Your task to perform on an android device: check android version Image 0: 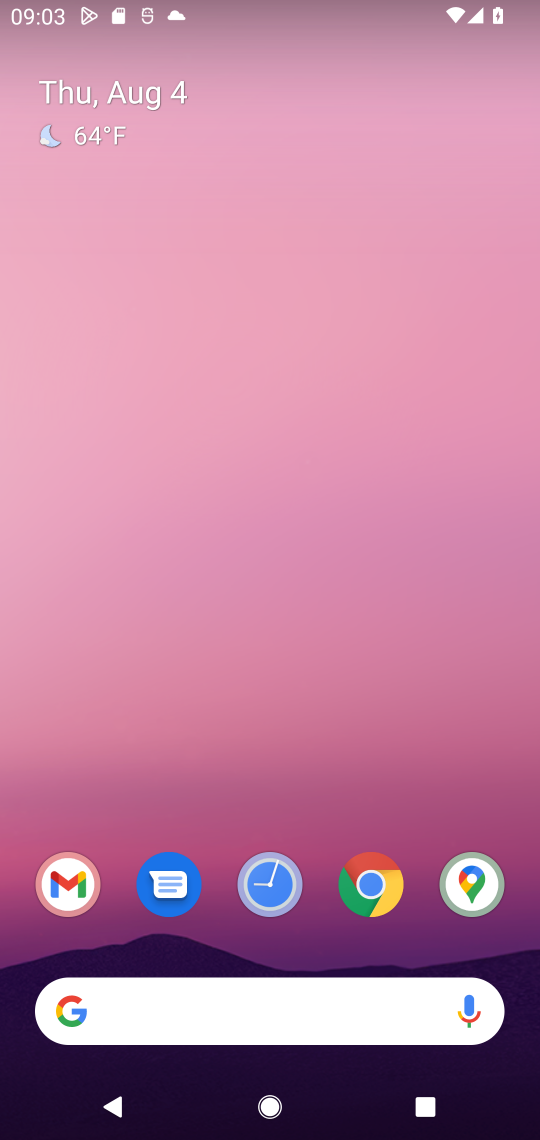
Step 0: drag from (347, 1062) to (196, 81)
Your task to perform on an android device: check android version Image 1: 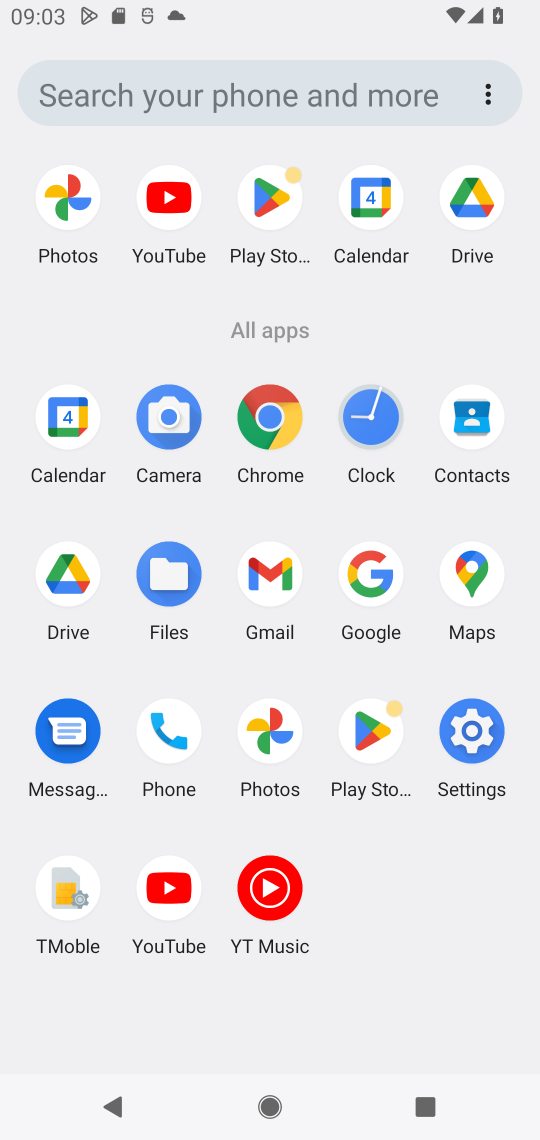
Step 1: click (508, 743)
Your task to perform on an android device: check android version Image 2: 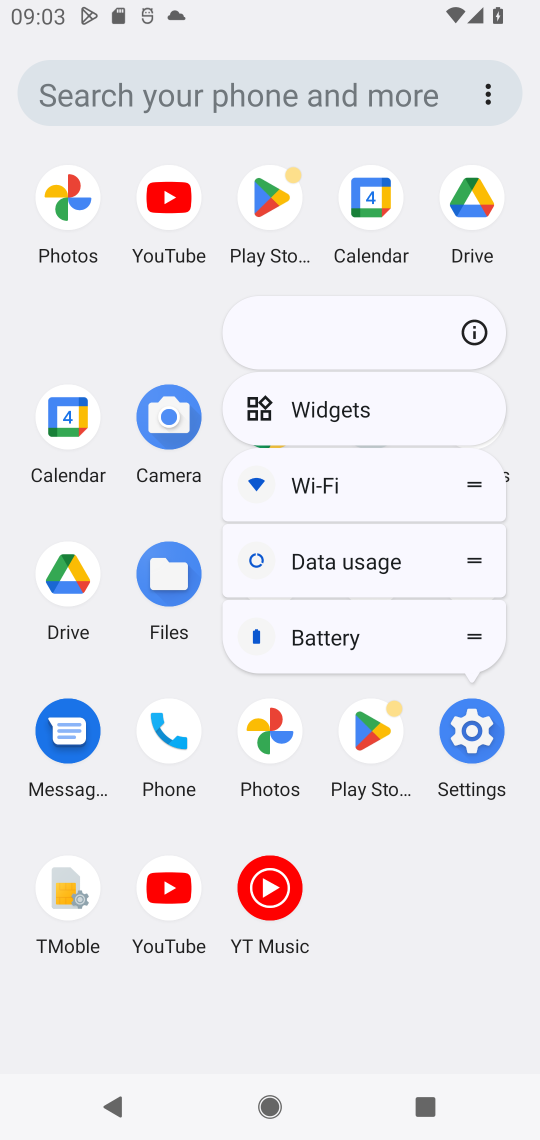
Step 2: click (488, 743)
Your task to perform on an android device: check android version Image 3: 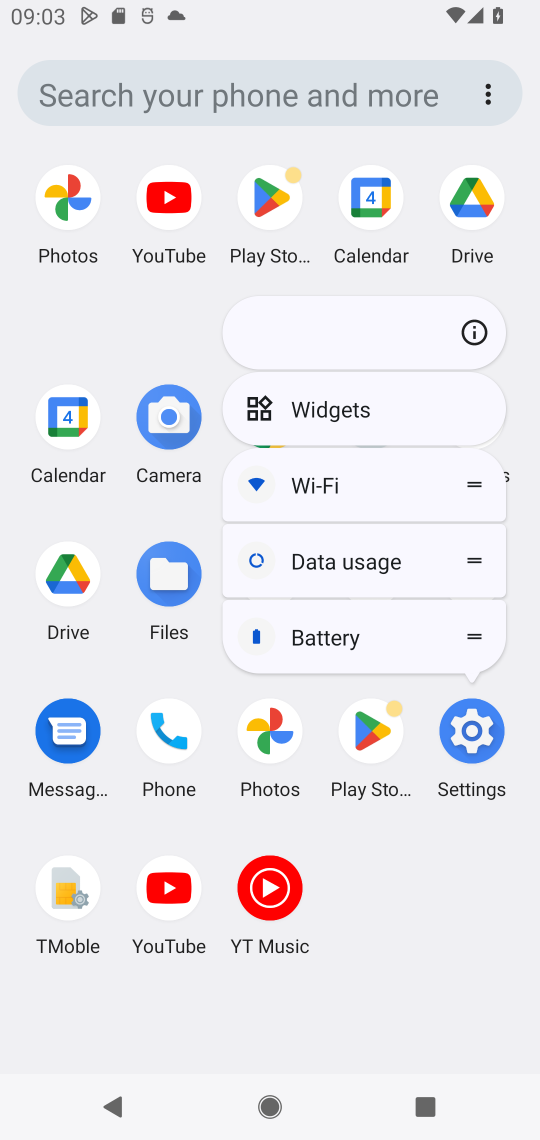
Step 3: click (488, 743)
Your task to perform on an android device: check android version Image 4: 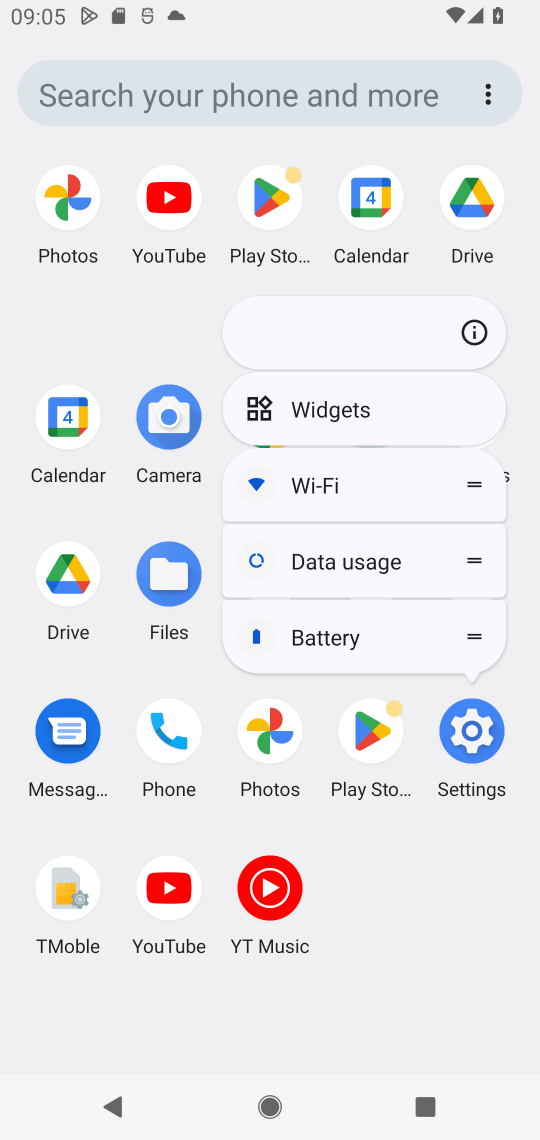
Step 4: click (465, 741)
Your task to perform on an android device: check android version Image 5: 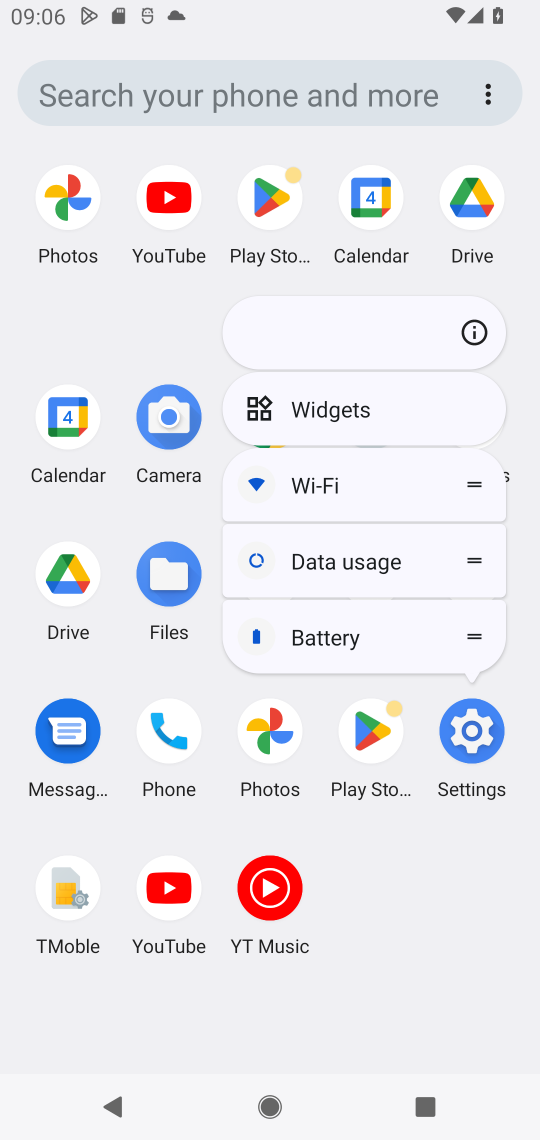
Step 5: click (471, 738)
Your task to perform on an android device: check android version Image 6: 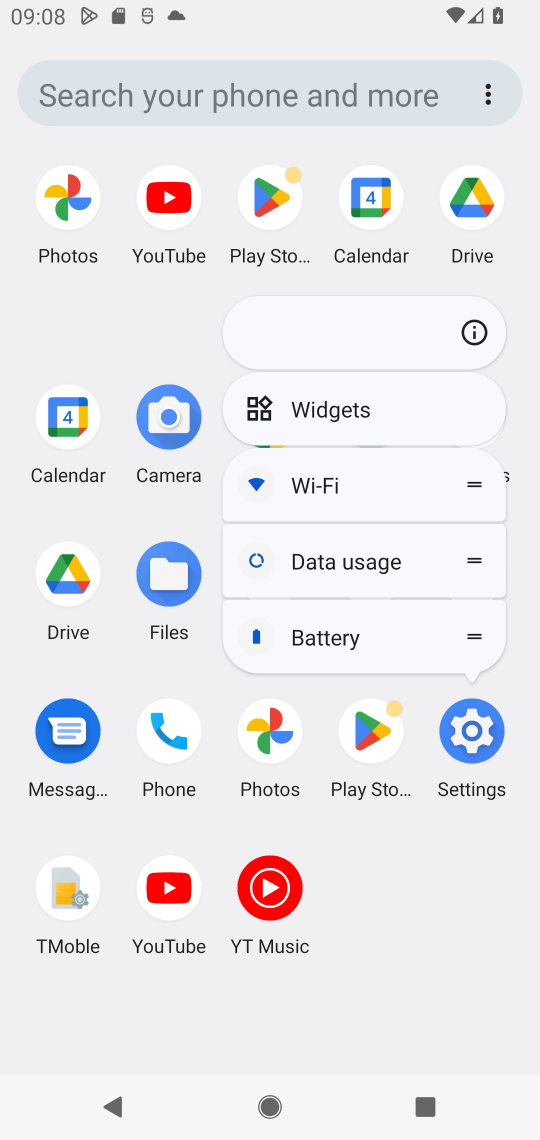
Step 6: click (488, 749)
Your task to perform on an android device: check android version Image 7: 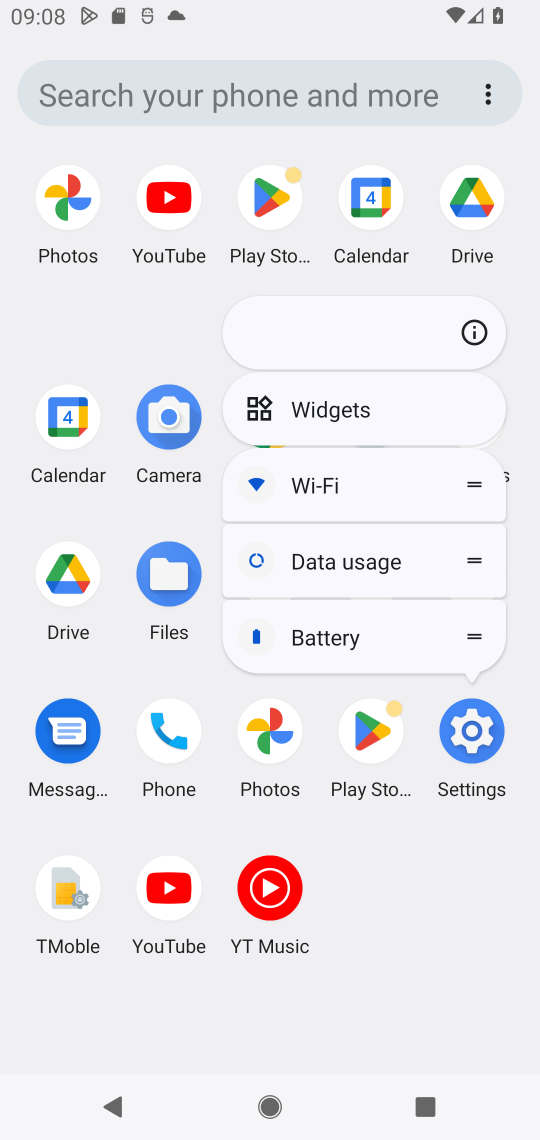
Step 7: click (488, 749)
Your task to perform on an android device: check android version Image 8: 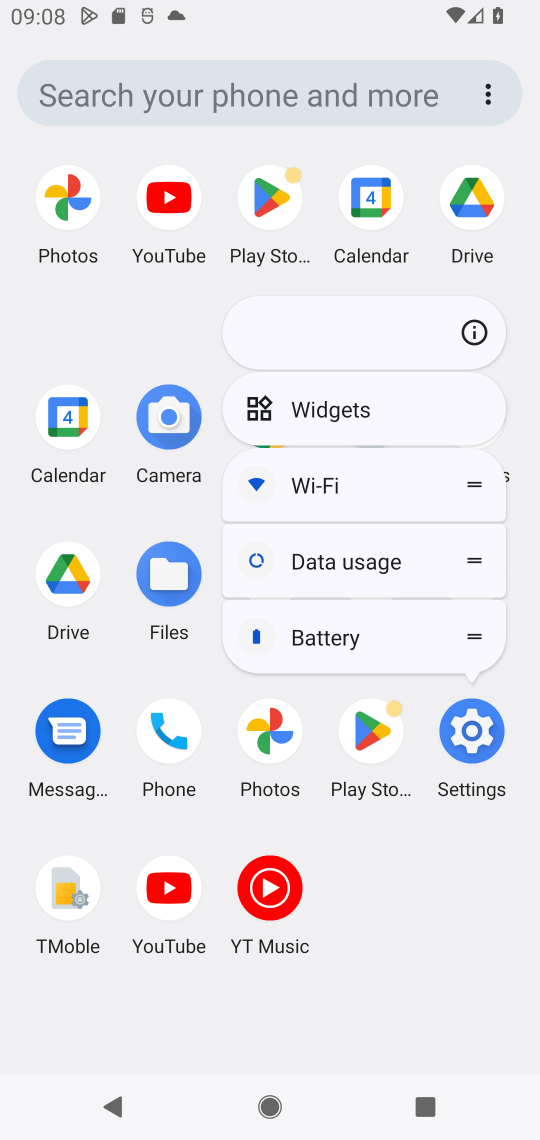
Step 8: click (464, 771)
Your task to perform on an android device: check android version Image 9: 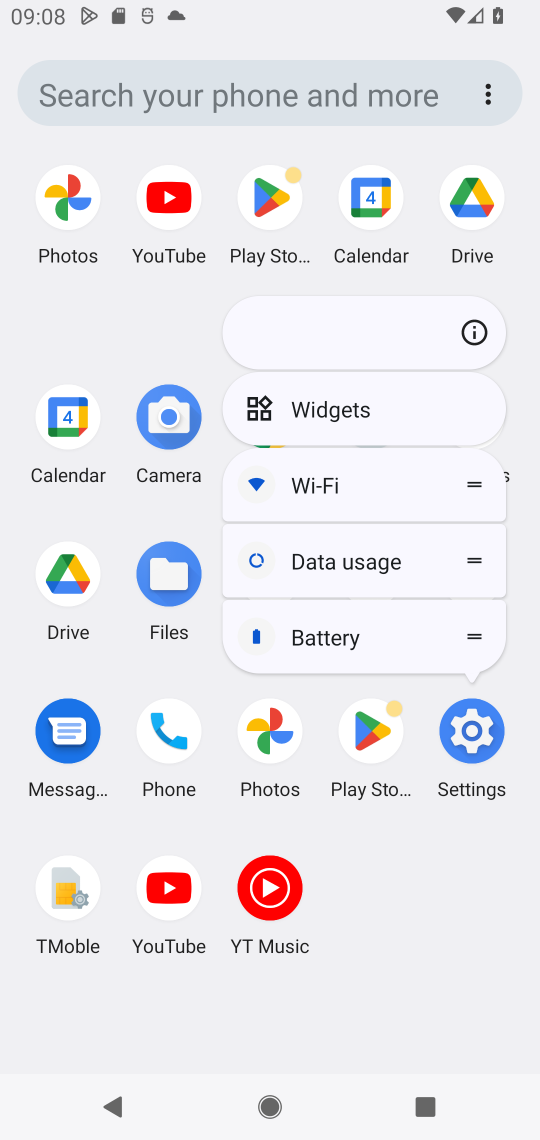
Step 9: click (472, 732)
Your task to perform on an android device: check android version Image 10: 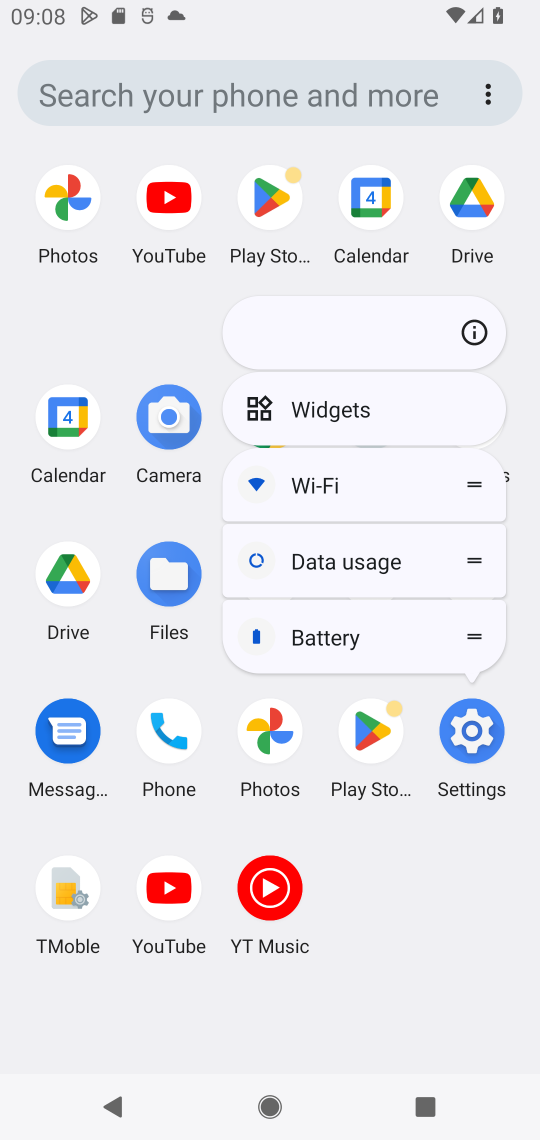
Step 10: click (450, 734)
Your task to perform on an android device: check android version Image 11: 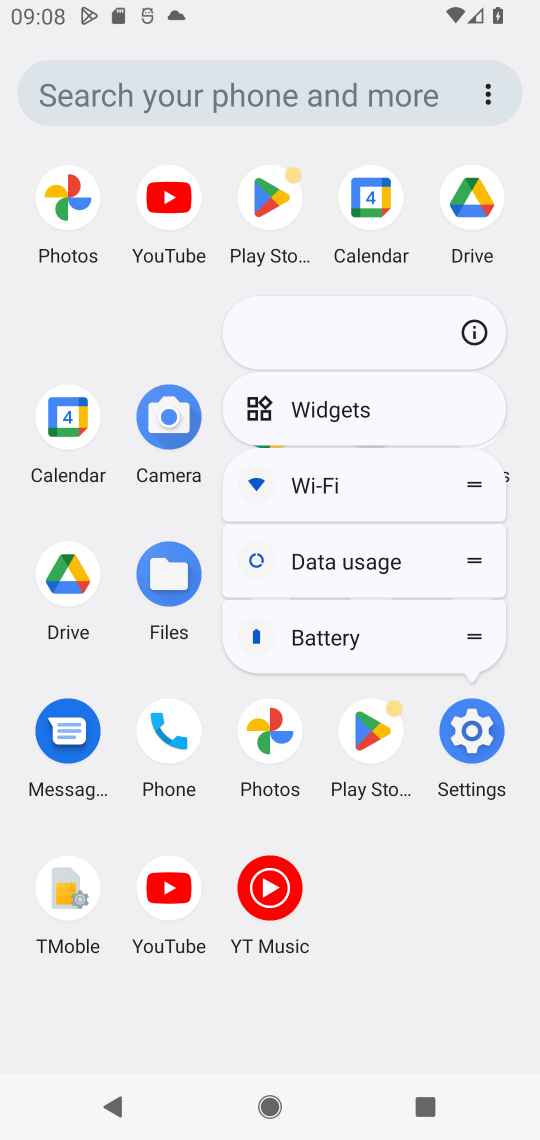
Step 11: click (463, 743)
Your task to perform on an android device: check android version Image 12: 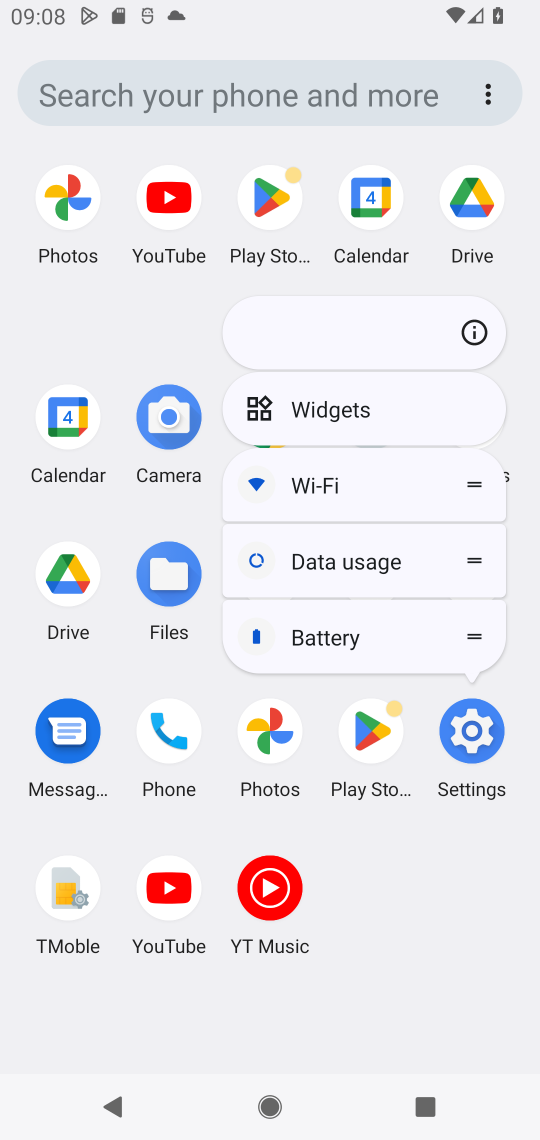
Step 12: click (476, 738)
Your task to perform on an android device: check android version Image 13: 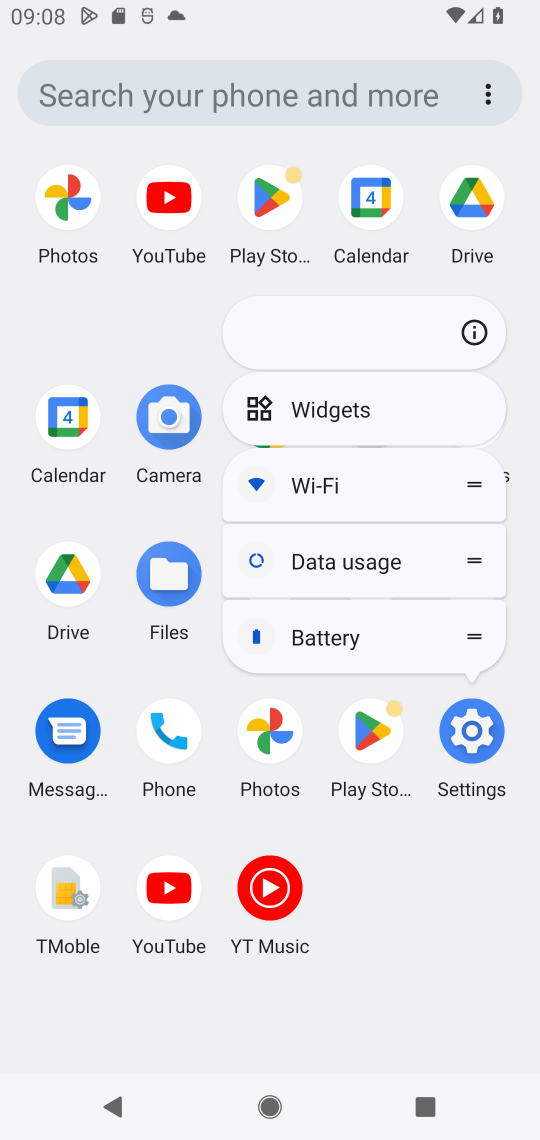
Step 13: click (476, 738)
Your task to perform on an android device: check android version Image 14: 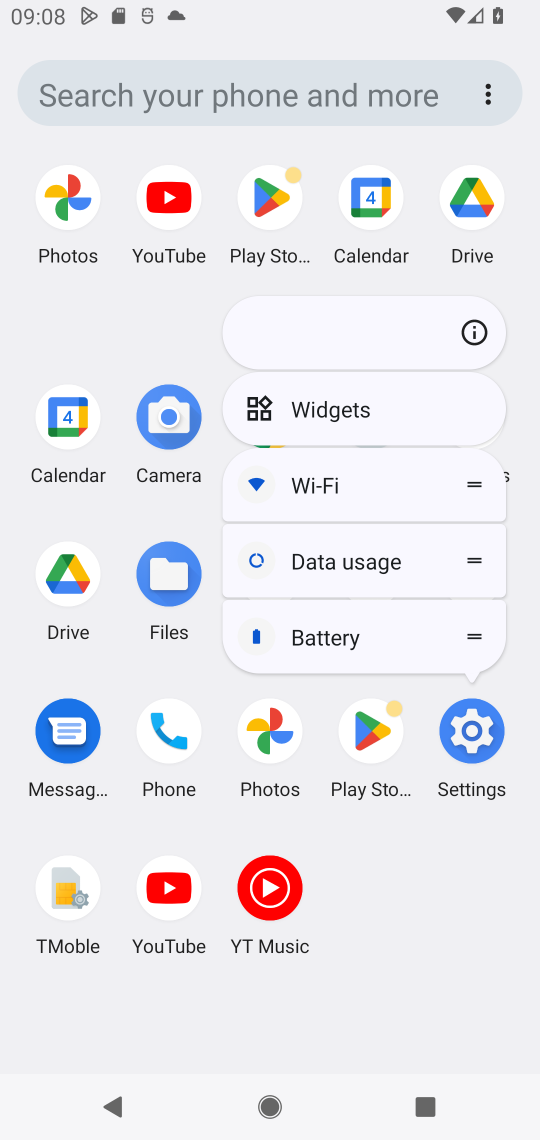
Step 14: click (467, 720)
Your task to perform on an android device: check android version Image 15: 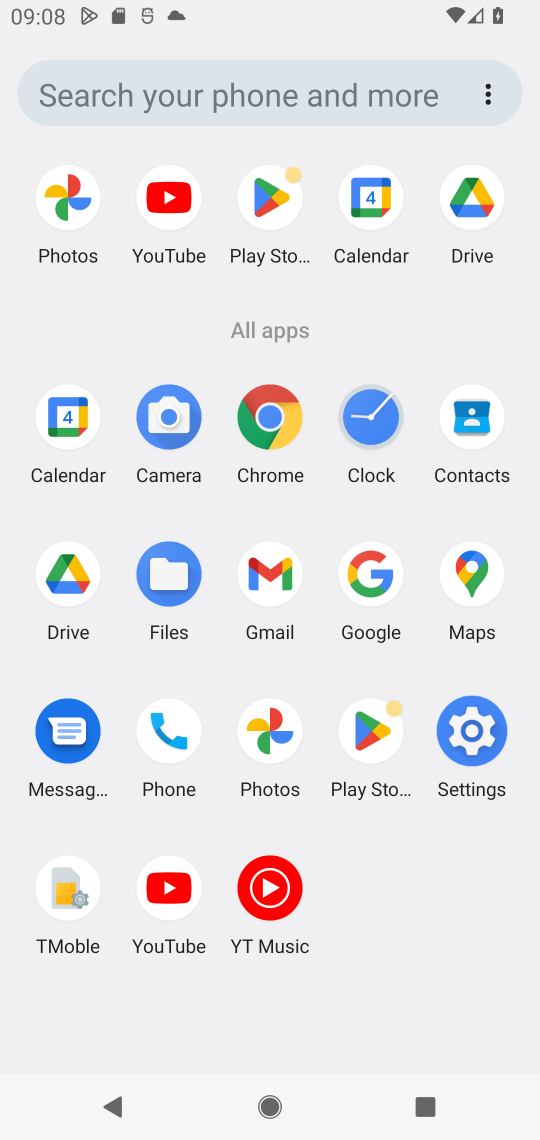
Step 15: click (467, 768)
Your task to perform on an android device: check android version Image 16: 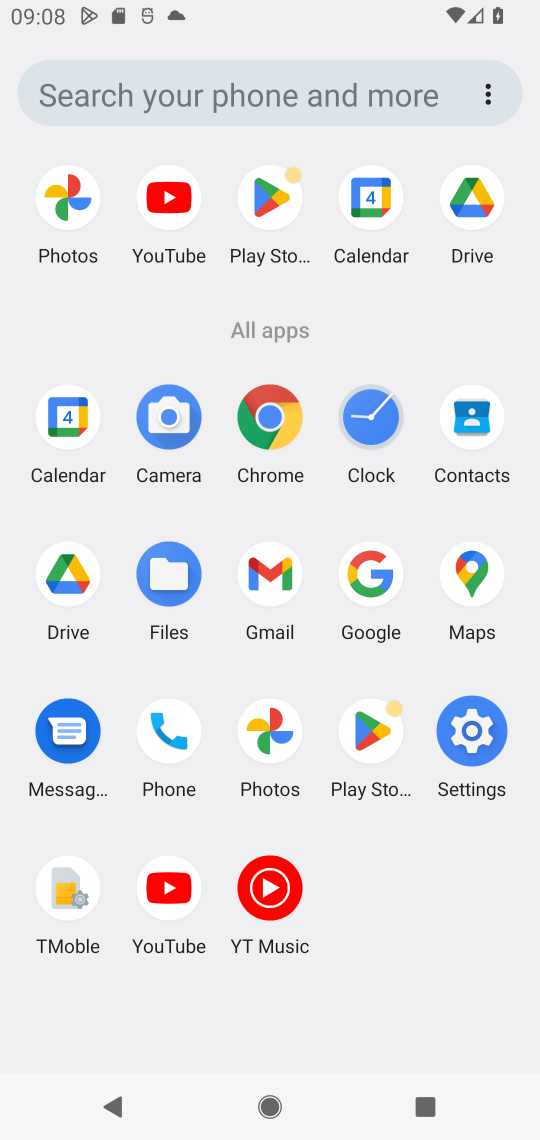
Step 16: click (467, 722)
Your task to perform on an android device: check android version Image 17: 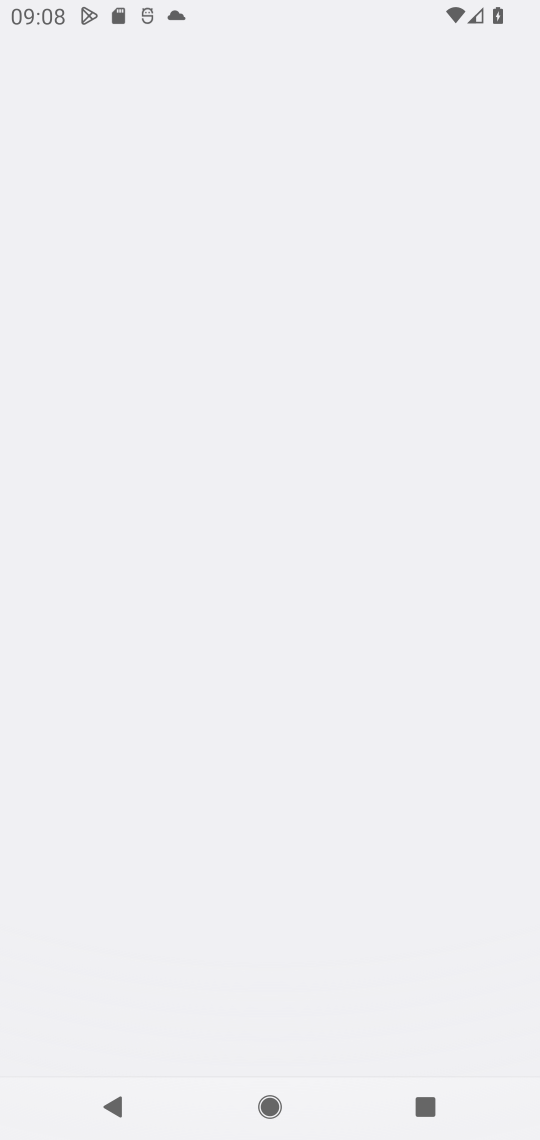
Step 17: click (452, 733)
Your task to perform on an android device: check android version Image 18: 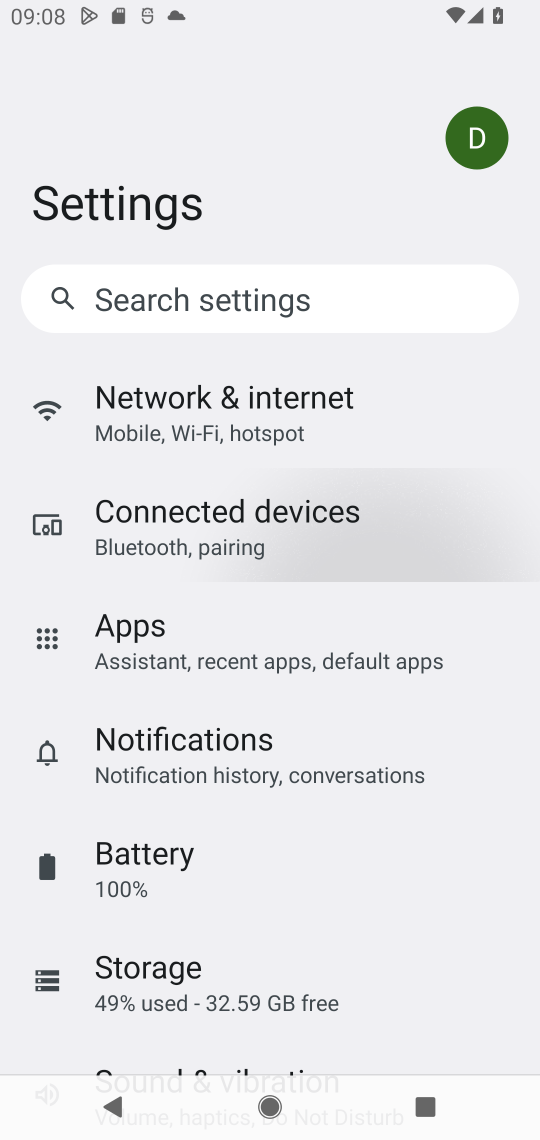
Step 18: click (505, 735)
Your task to perform on an android device: check android version Image 19: 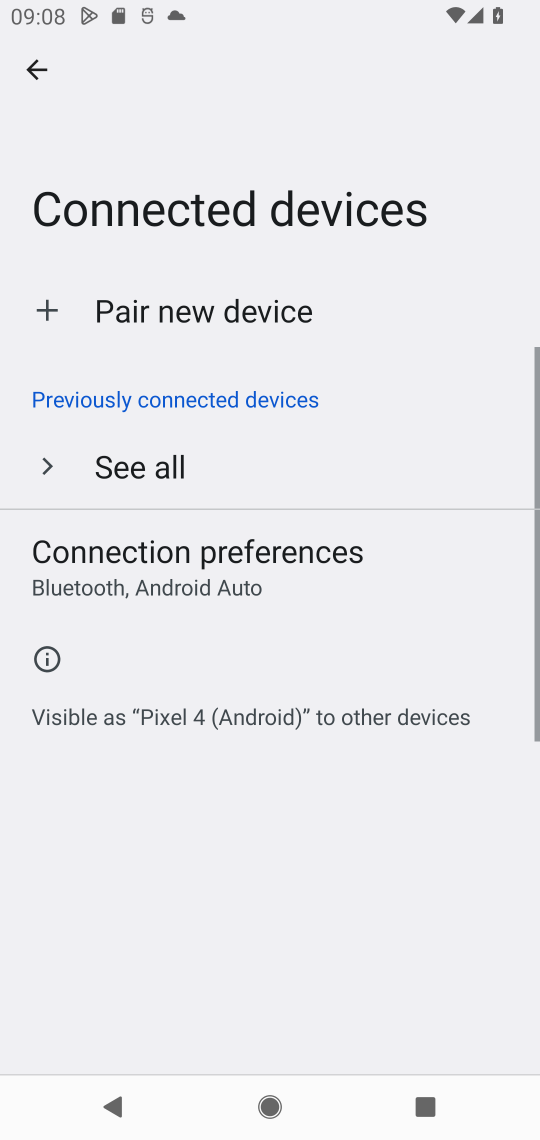
Step 19: drag from (361, 876) to (306, 197)
Your task to perform on an android device: check android version Image 20: 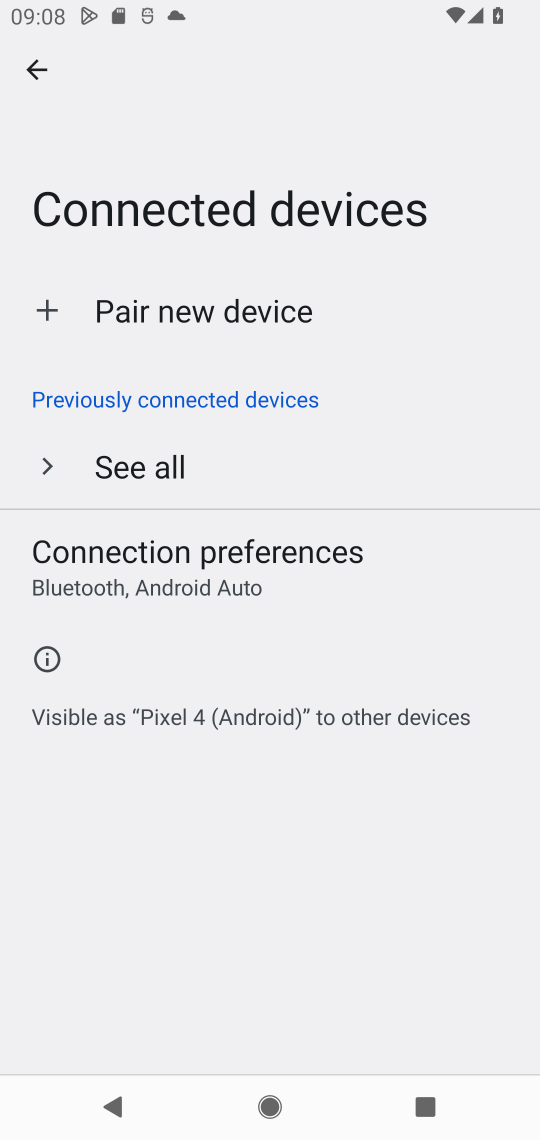
Step 20: click (37, 75)
Your task to perform on an android device: check android version Image 21: 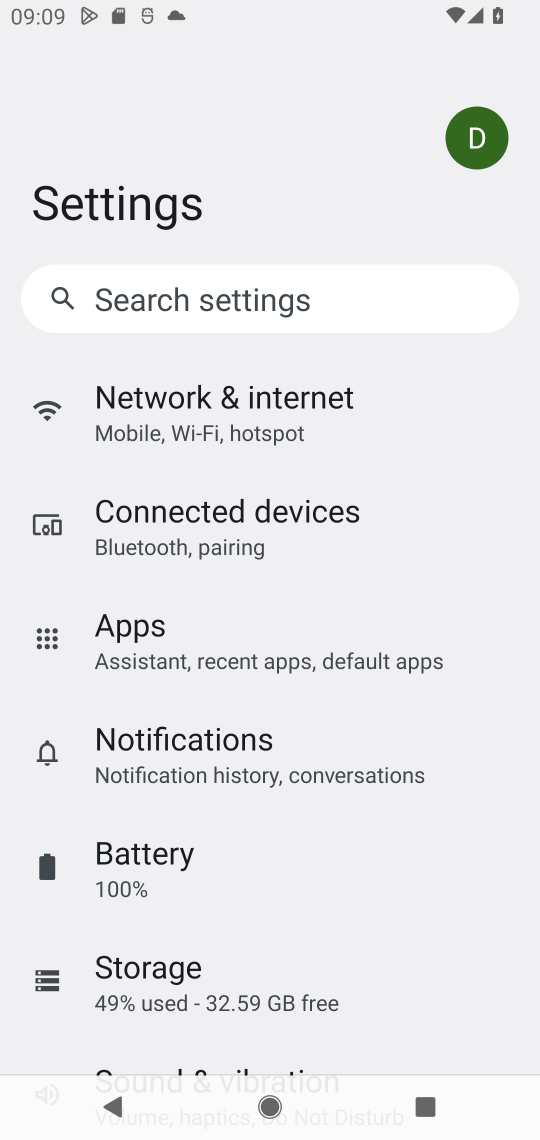
Step 21: drag from (216, 669) to (203, 11)
Your task to perform on an android device: check android version Image 22: 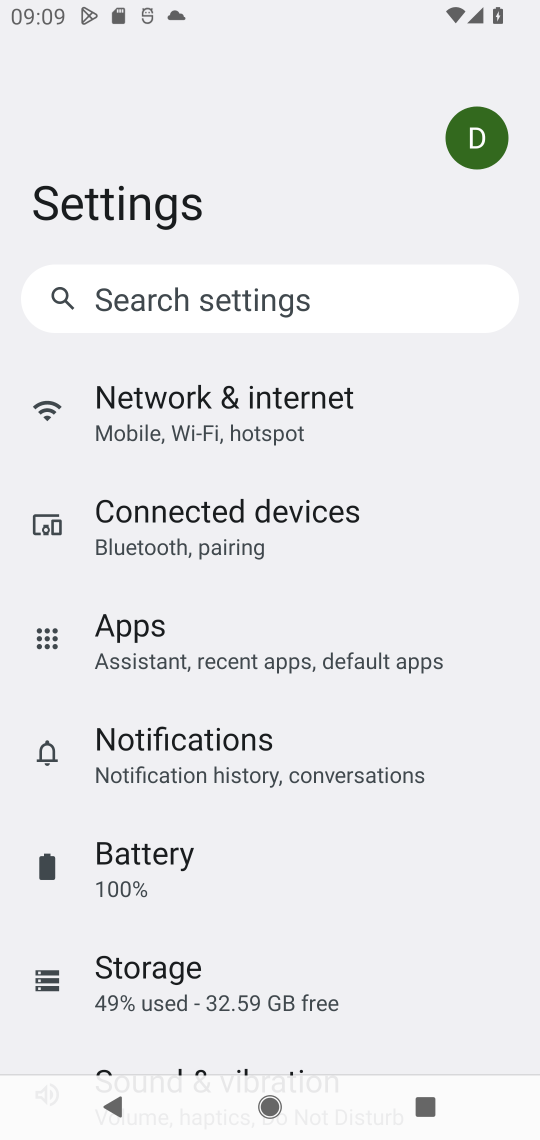
Step 22: drag from (339, 508) to (349, 95)
Your task to perform on an android device: check android version Image 23: 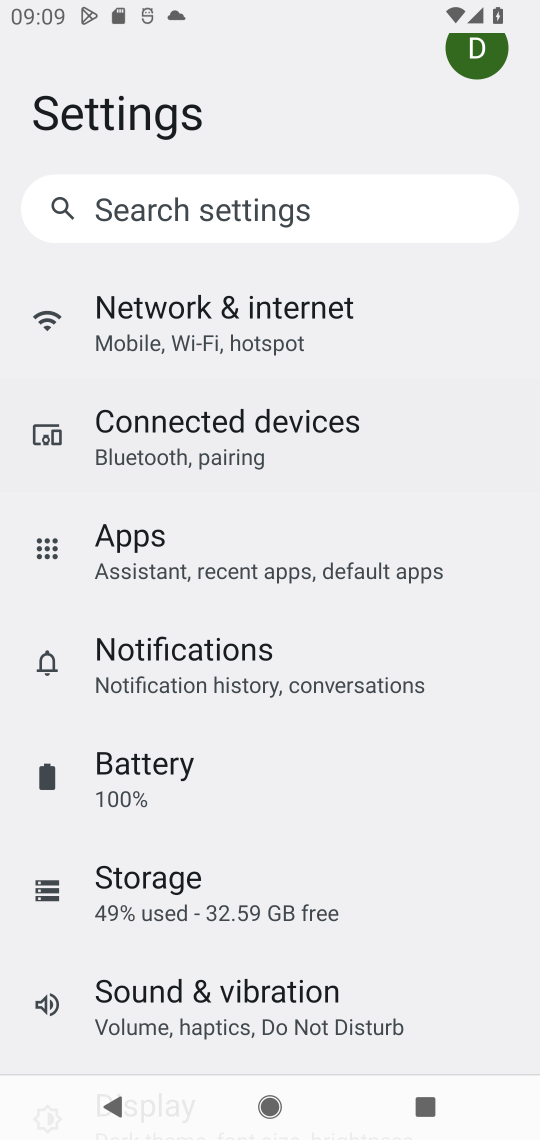
Step 23: drag from (393, 919) to (363, 218)
Your task to perform on an android device: check android version Image 24: 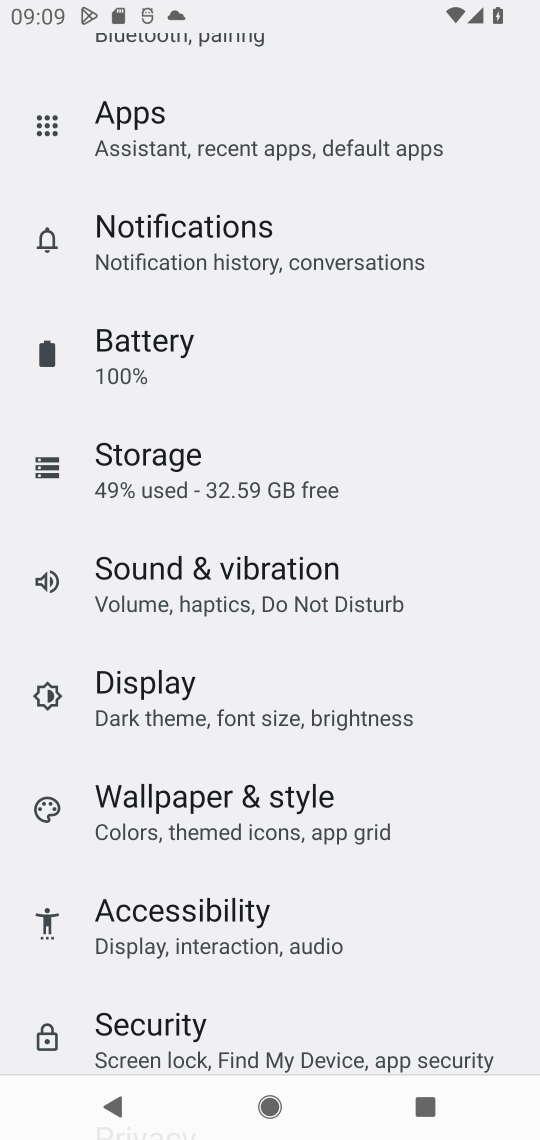
Step 24: drag from (331, 917) to (336, 361)
Your task to perform on an android device: check android version Image 25: 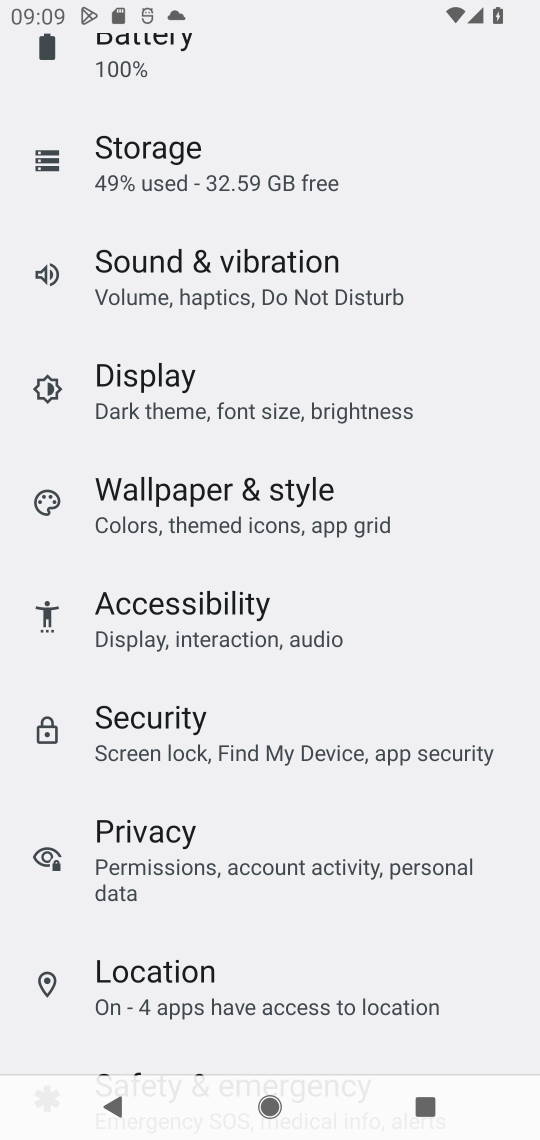
Step 25: drag from (374, 1049) to (422, 119)
Your task to perform on an android device: check android version Image 26: 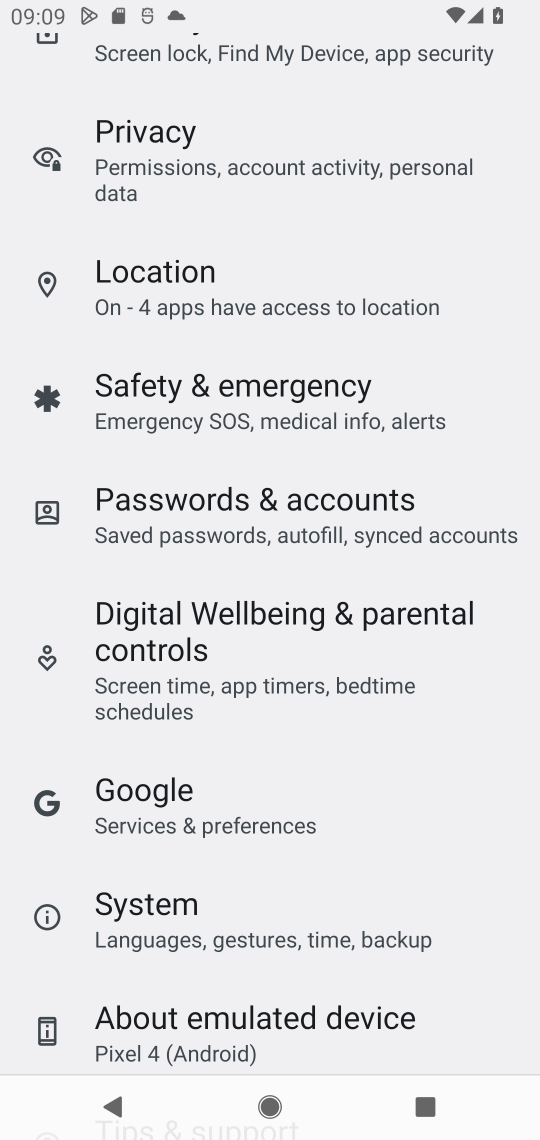
Step 26: drag from (419, 974) to (393, 56)
Your task to perform on an android device: check android version Image 27: 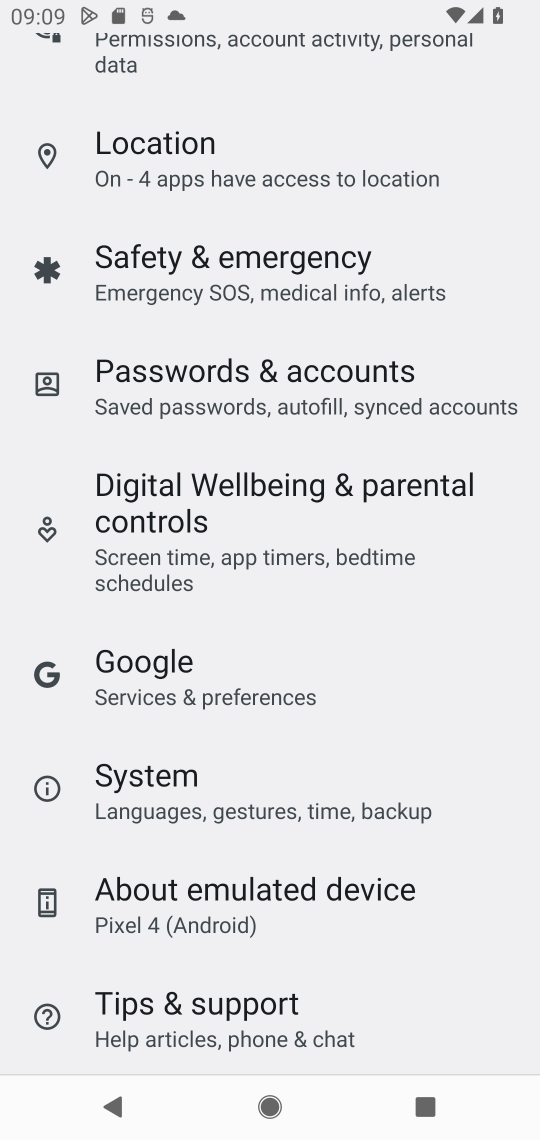
Step 27: drag from (331, 914) to (256, 260)
Your task to perform on an android device: check android version Image 28: 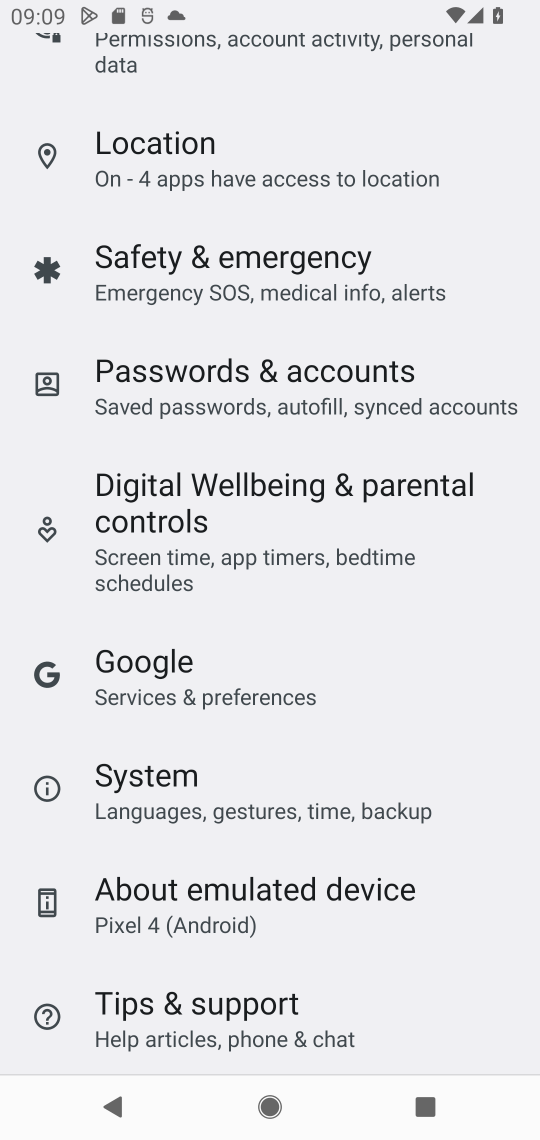
Step 28: click (334, 925)
Your task to perform on an android device: check android version Image 29: 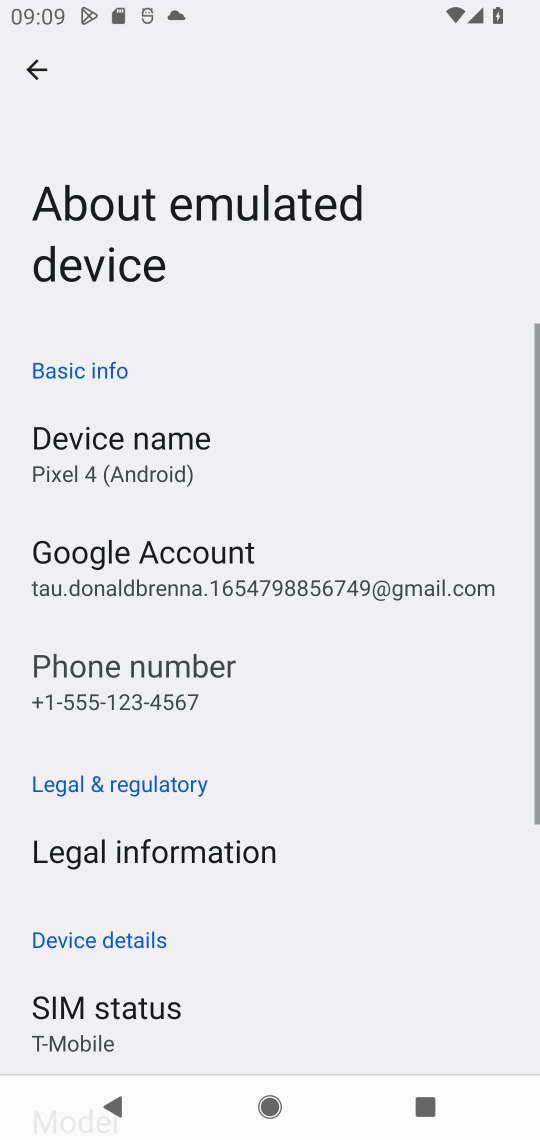
Step 29: task complete